Your task to perform on an android device: Open sound settings Image 0: 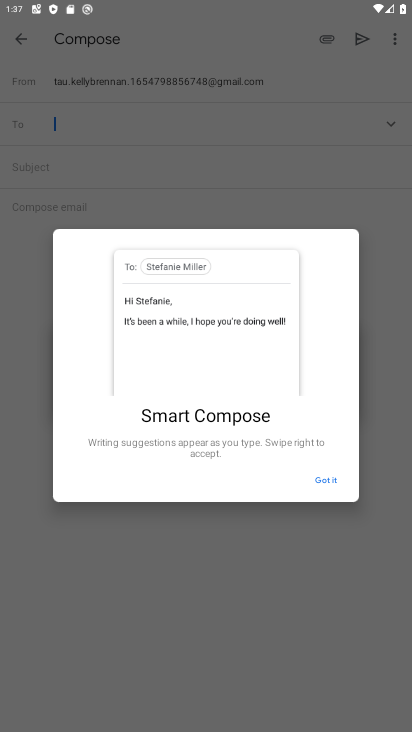
Step 0: press home button
Your task to perform on an android device: Open sound settings Image 1: 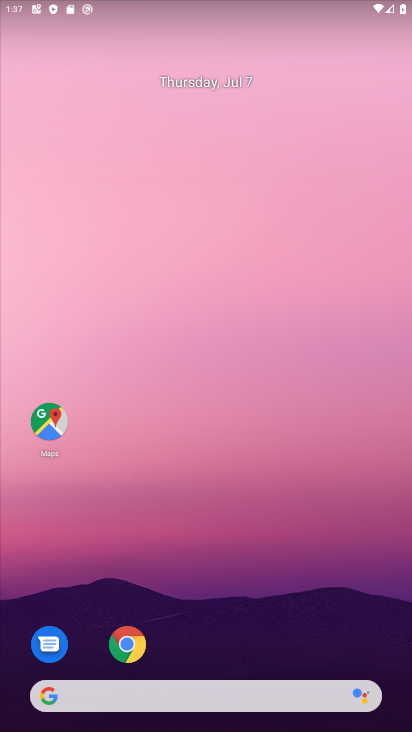
Step 1: drag from (219, 688) to (187, 245)
Your task to perform on an android device: Open sound settings Image 2: 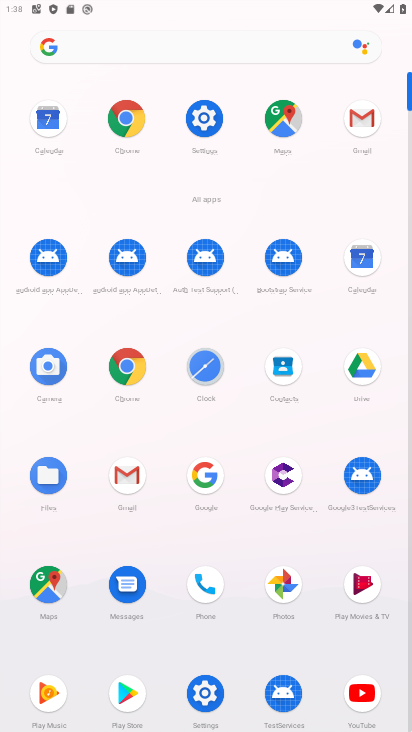
Step 2: click (202, 125)
Your task to perform on an android device: Open sound settings Image 3: 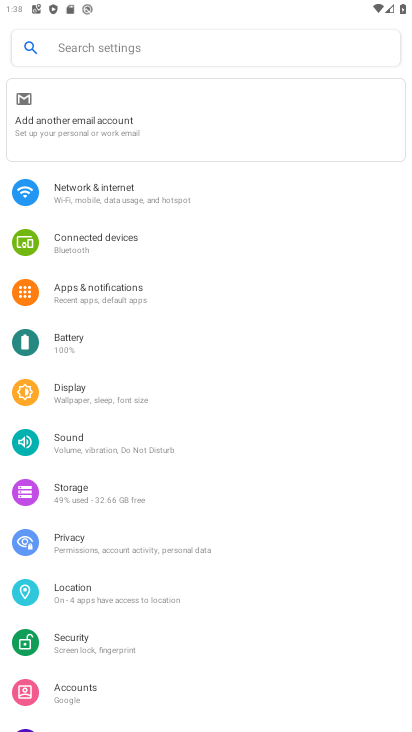
Step 3: click (100, 452)
Your task to perform on an android device: Open sound settings Image 4: 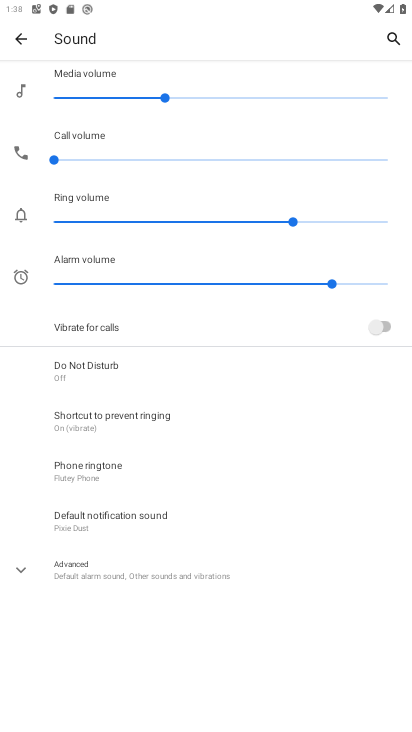
Step 4: task complete